Your task to perform on an android device: empty trash in google photos Image 0: 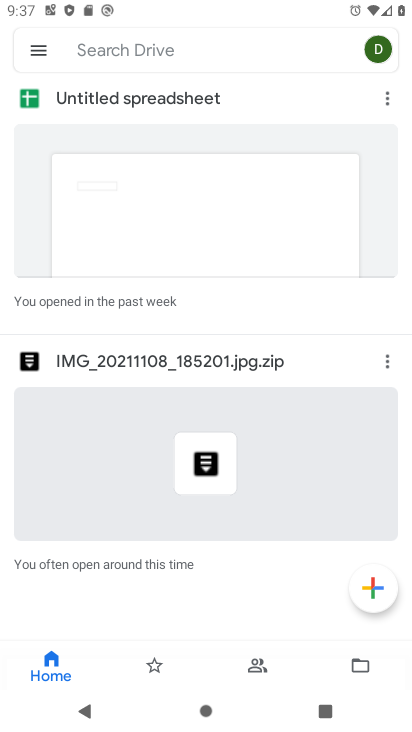
Step 0: press home button
Your task to perform on an android device: empty trash in google photos Image 1: 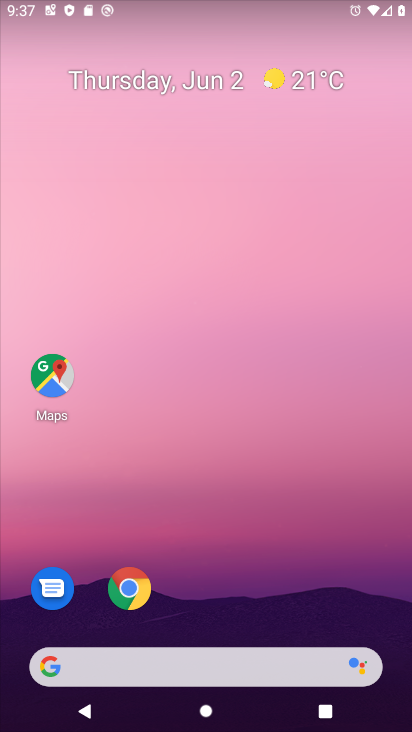
Step 1: drag from (189, 653) to (207, 281)
Your task to perform on an android device: empty trash in google photos Image 2: 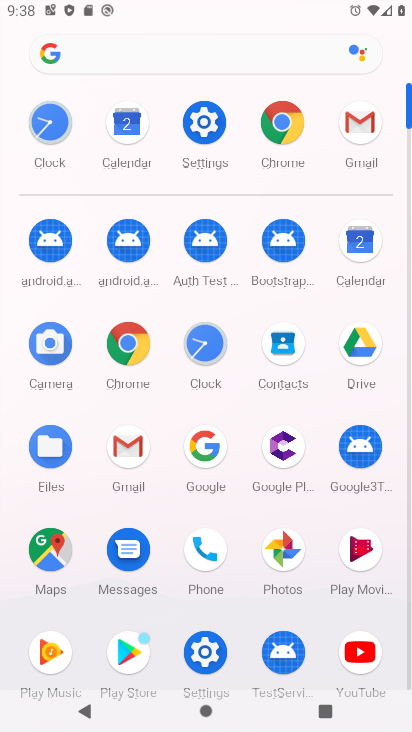
Step 2: click (280, 541)
Your task to perform on an android device: empty trash in google photos Image 3: 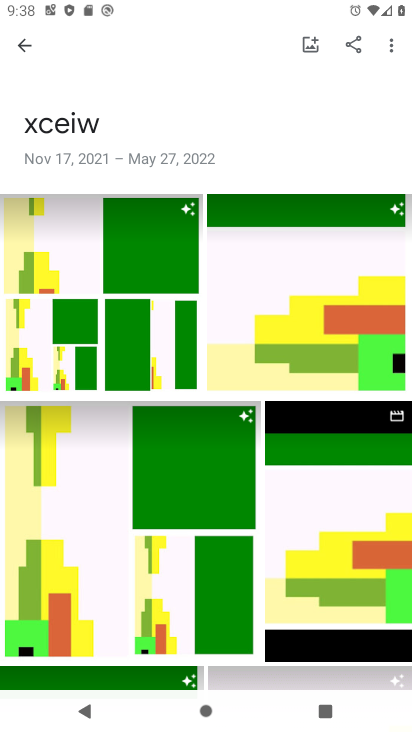
Step 3: click (22, 39)
Your task to perform on an android device: empty trash in google photos Image 4: 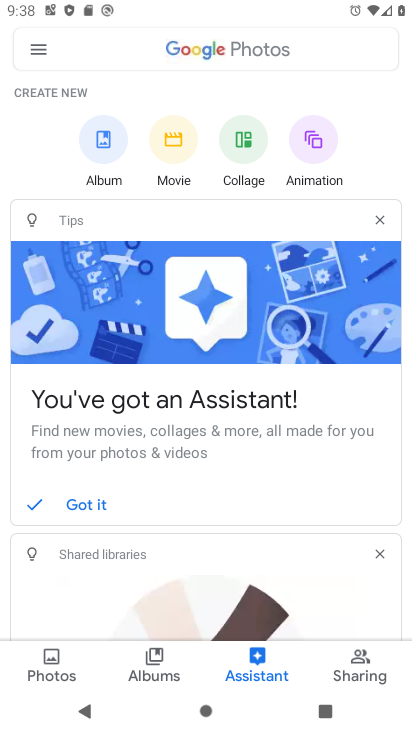
Step 4: click (20, 41)
Your task to perform on an android device: empty trash in google photos Image 5: 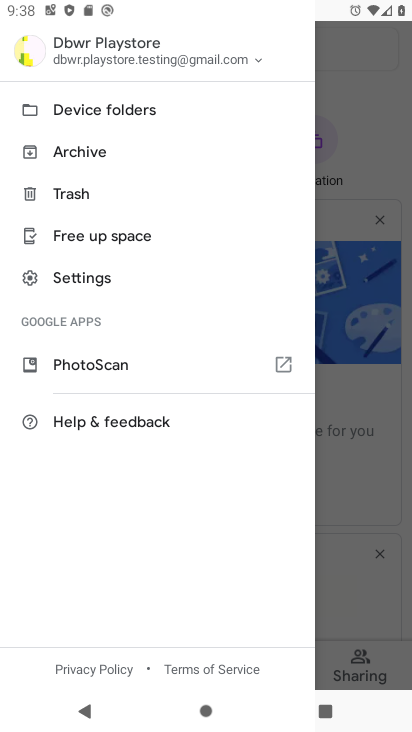
Step 5: click (91, 192)
Your task to perform on an android device: empty trash in google photos Image 6: 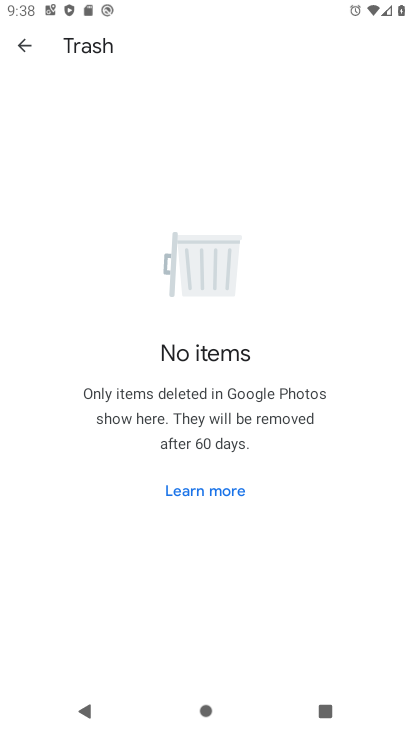
Step 6: task complete